Your task to perform on an android device: change notification settings in the gmail app Image 0: 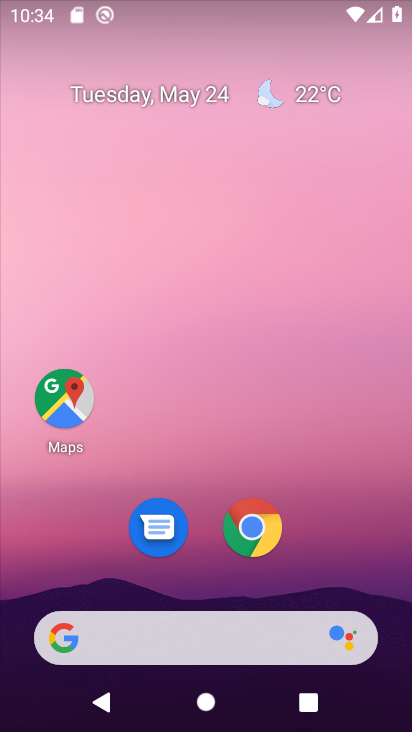
Step 0: press home button
Your task to perform on an android device: change notification settings in the gmail app Image 1: 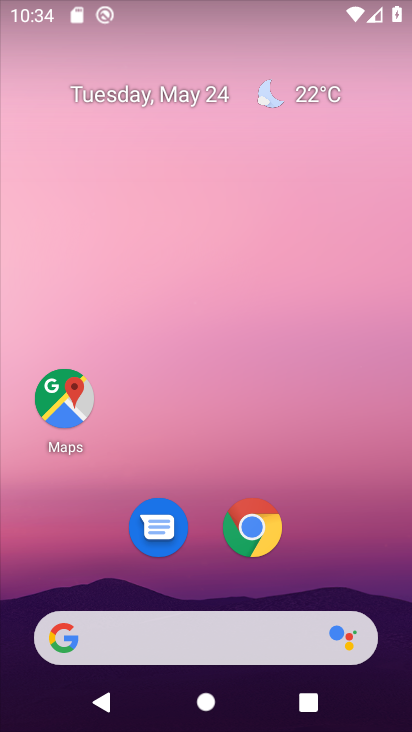
Step 1: drag from (167, 651) to (311, 195)
Your task to perform on an android device: change notification settings in the gmail app Image 2: 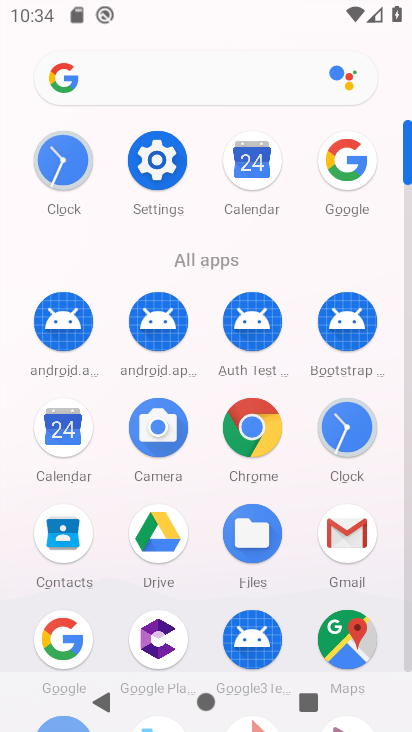
Step 2: click (360, 538)
Your task to perform on an android device: change notification settings in the gmail app Image 3: 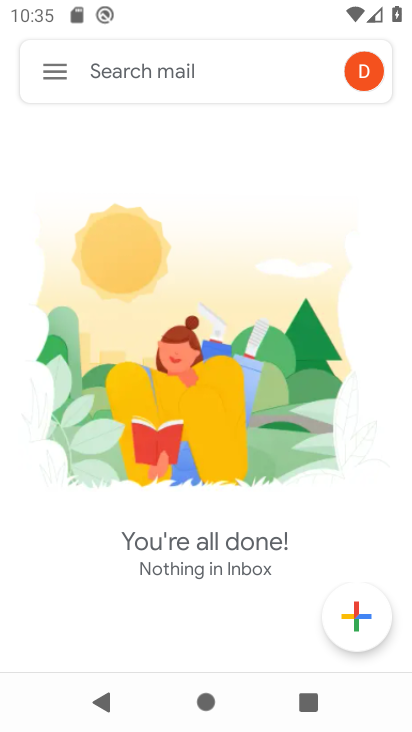
Step 3: click (54, 67)
Your task to perform on an android device: change notification settings in the gmail app Image 4: 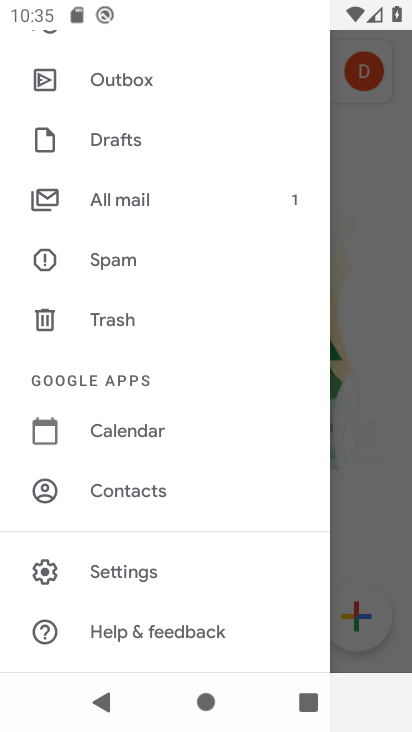
Step 4: click (131, 563)
Your task to perform on an android device: change notification settings in the gmail app Image 5: 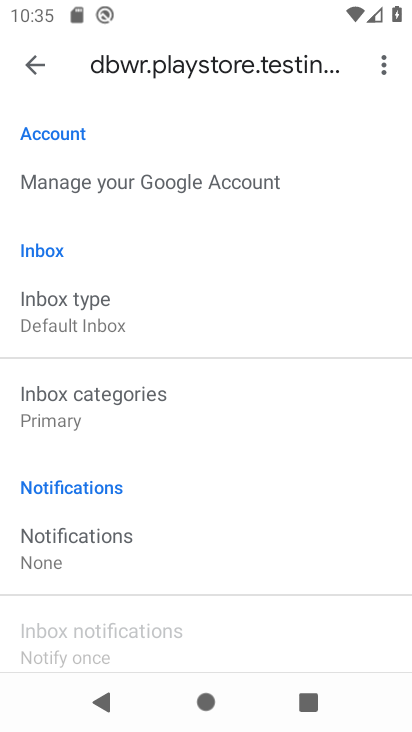
Step 5: click (97, 546)
Your task to perform on an android device: change notification settings in the gmail app Image 6: 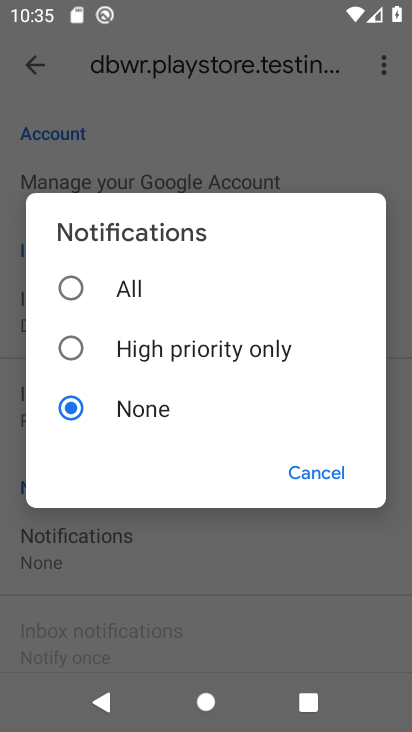
Step 6: click (63, 289)
Your task to perform on an android device: change notification settings in the gmail app Image 7: 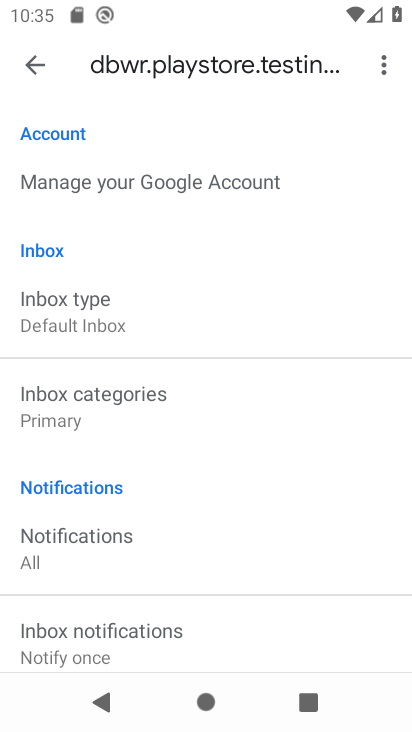
Step 7: task complete